Your task to perform on an android device: turn on bluetooth scan Image 0: 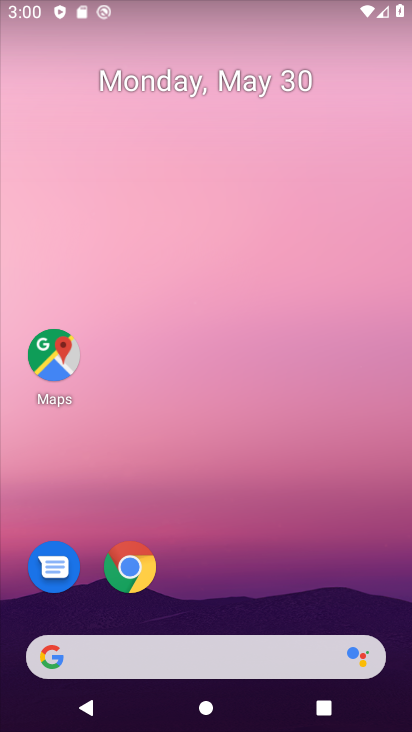
Step 0: drag from (252, 623) to (318, 34)
Your task to perform on an android device: turn on bluetooth scan Image 1: 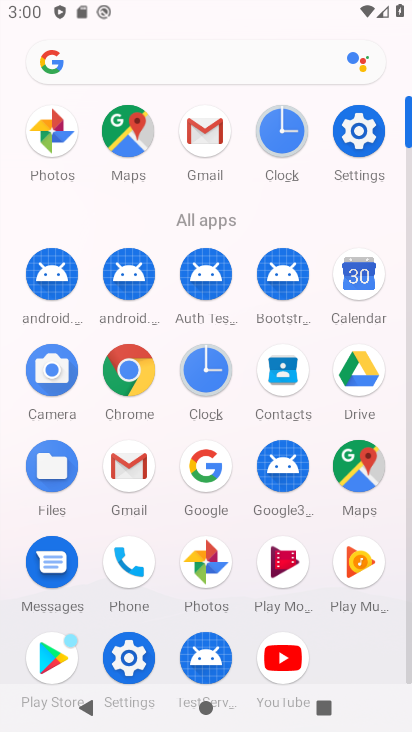
Step 1: click (133, 647)
Your task to perform on an android device: turn on bluetooth scan Image 2: 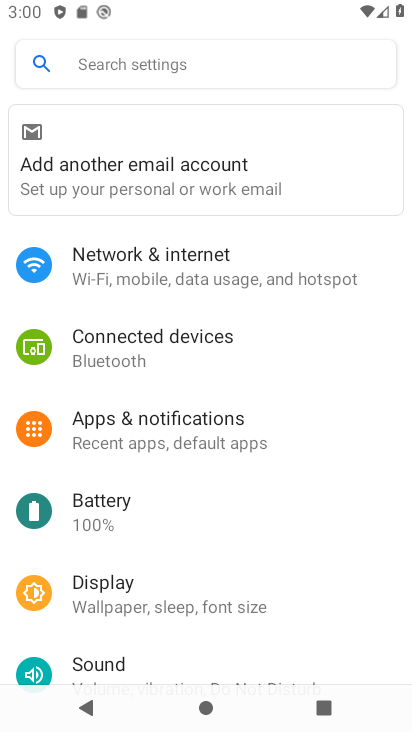
Step 2: drag from (202, 626) to (211, 223)
Your task to perform on an android device: turn on bluetooth scan Image 3: 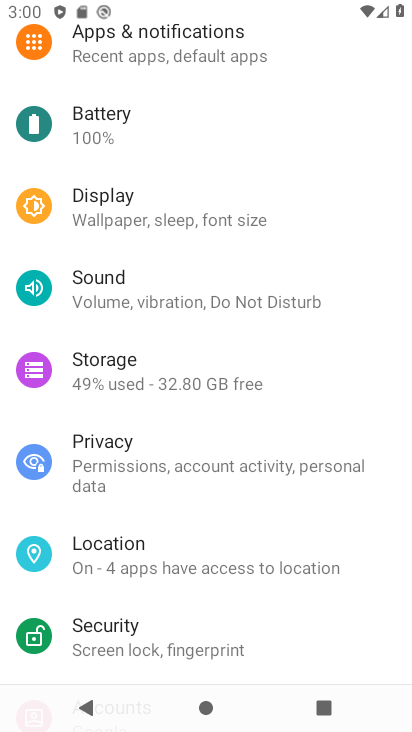
Step 3: click (192, 557)
Your task to perform on an android device: turn on bluetooth scan Image 4: 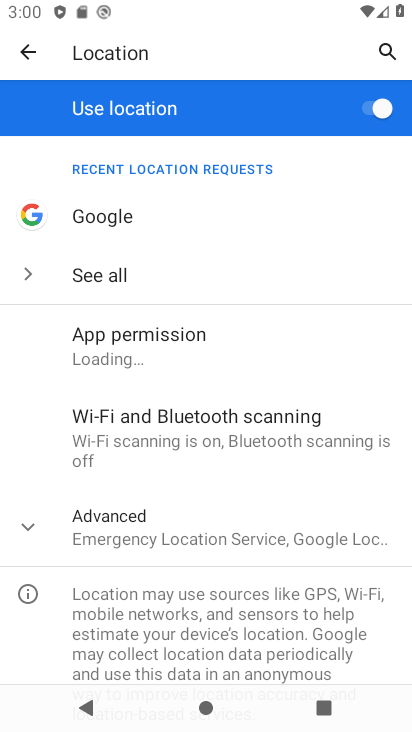
Step 4: click (198, 546)
Your task to perform on an android device: turn on bluetooth scan Image 5: 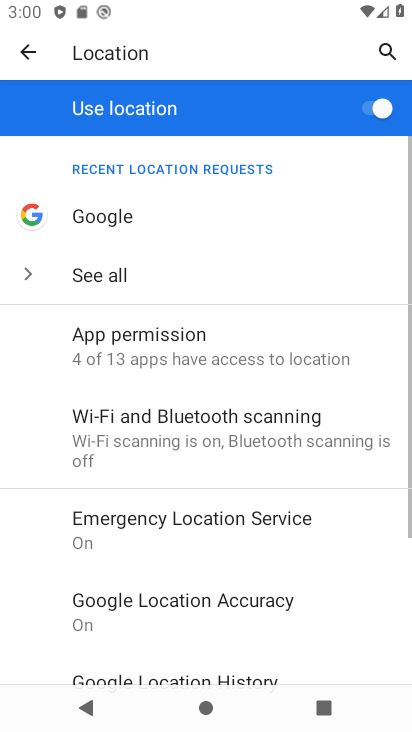
Step 5: click (225, 459)
Your task to perform on an android device: turn on bluetooth scan Image 6: 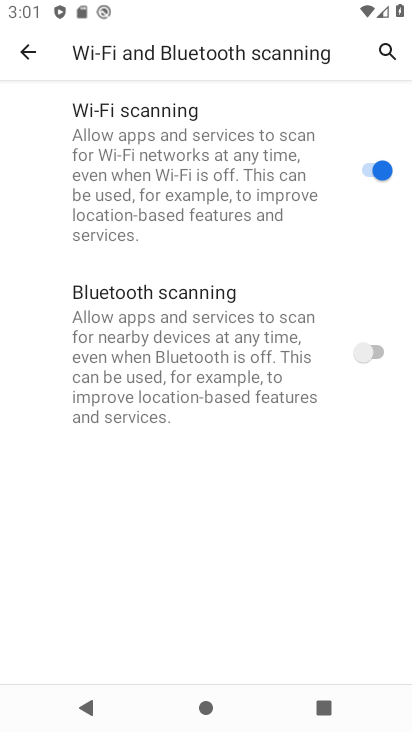
Step 6: click (375, 352)
Your task to perform on an android device: turn on bluetooth scan Image 7: 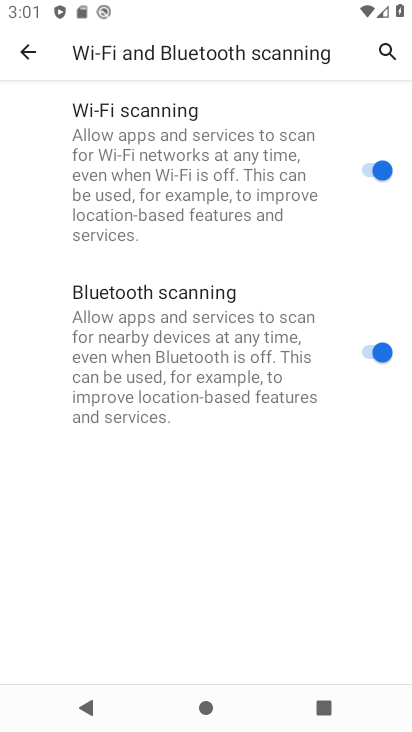
Step 7: task complete